Your task to perform on an android device: Open Google Image 0: 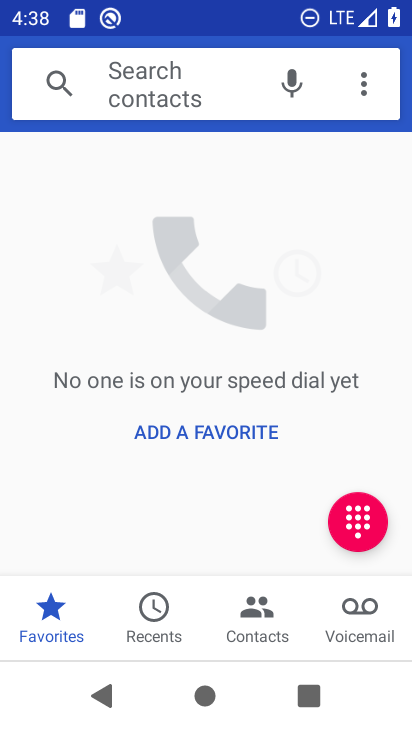
Step 0: press back button
Your task to perform on an android device: Open Google Image 1: 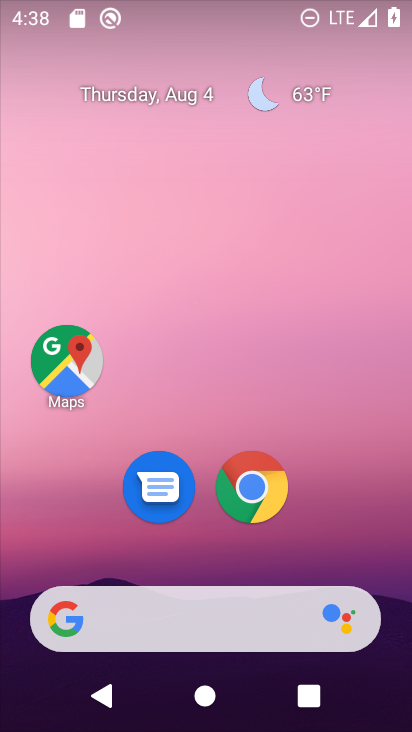
Step 1: drag from (226, 554) to (303, 13)
Your task to perform on an android device: Open Google Image 2: 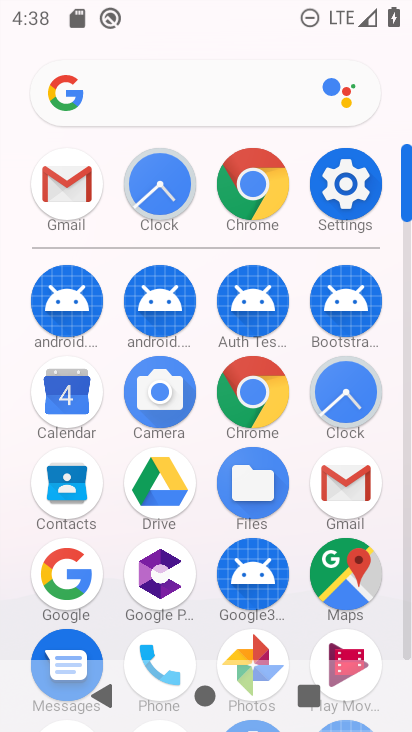
Step 2: click (75, 584)
Your task to perform on an android device: Open Google Image 3: 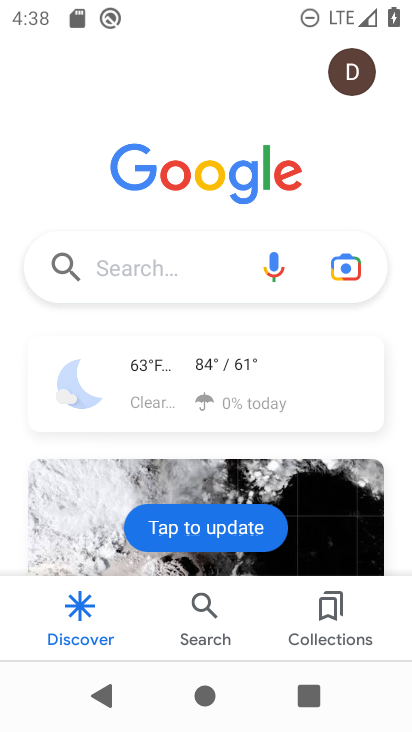
Step 3: task complete